Your task to perform on an android device: set the stopwatch Image 0: 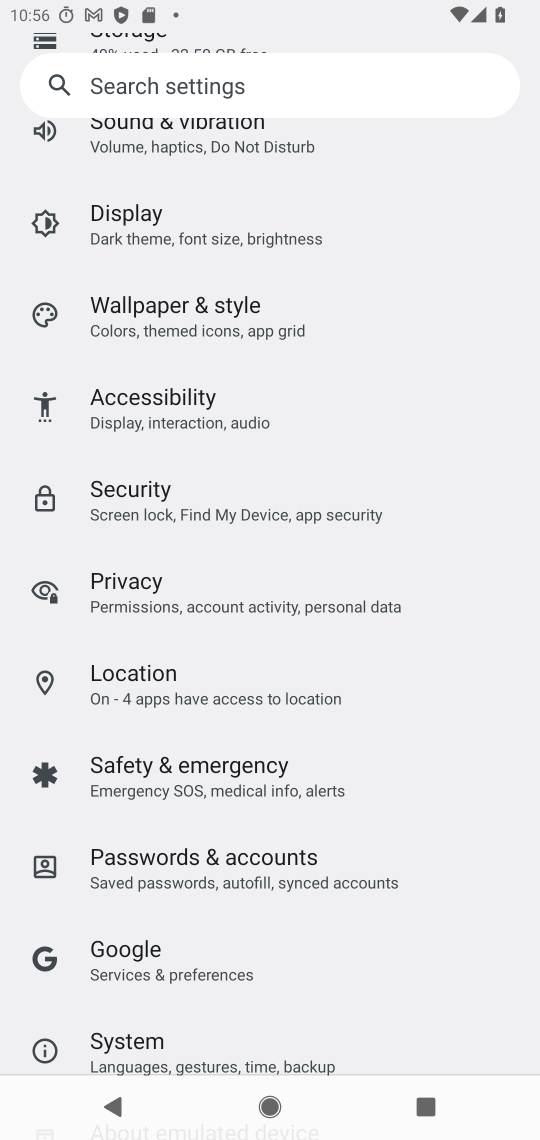
Step 0: press home button
Your task to perform on an android device: set the stopwatch Image 1: 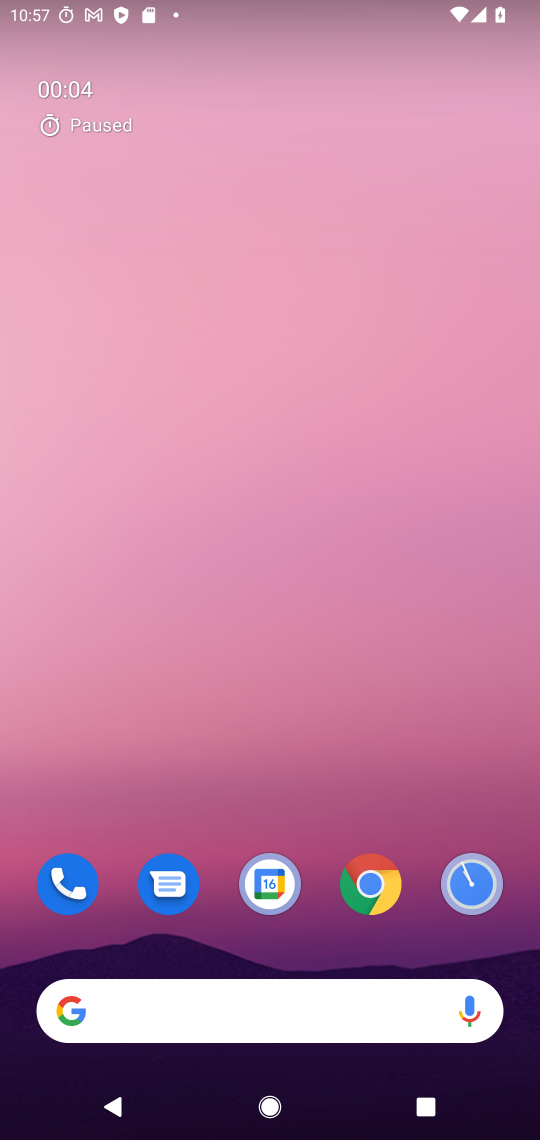
Step 1: click (467, 887)
Your task to perform on an android device: set the stopwatch Image 2: 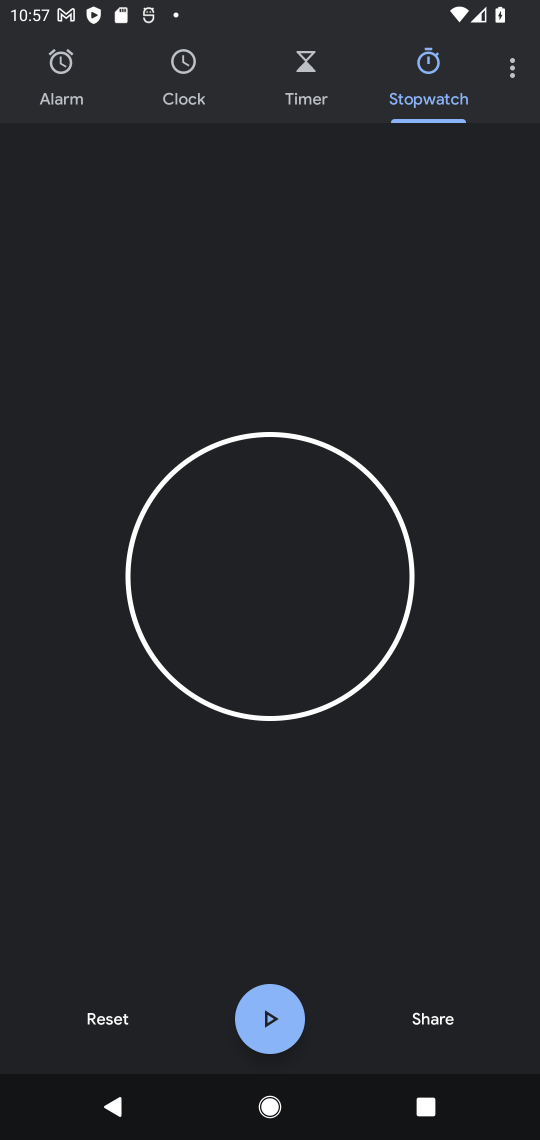
Step 2: click (109, 1026)
Your task to perform on an android device: set the stopwatch Image 3: 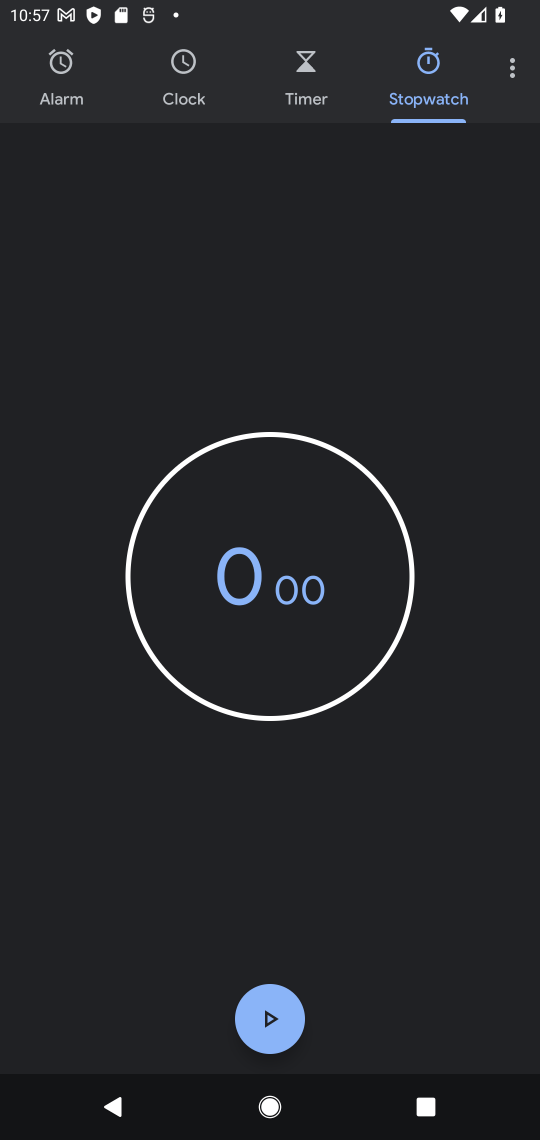
Step 3: click (261, 1023)
Your task to perform on an android device: set the stopwatch Image 4: 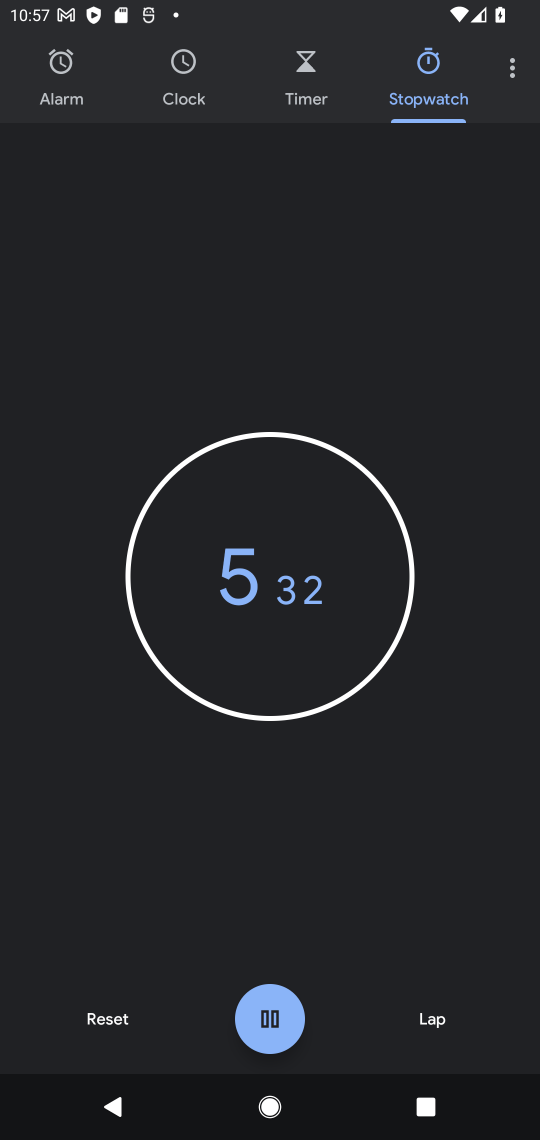
Step 4: click (261, 1023)
Your task to perform on an android device: set the stopwatch Image 5: 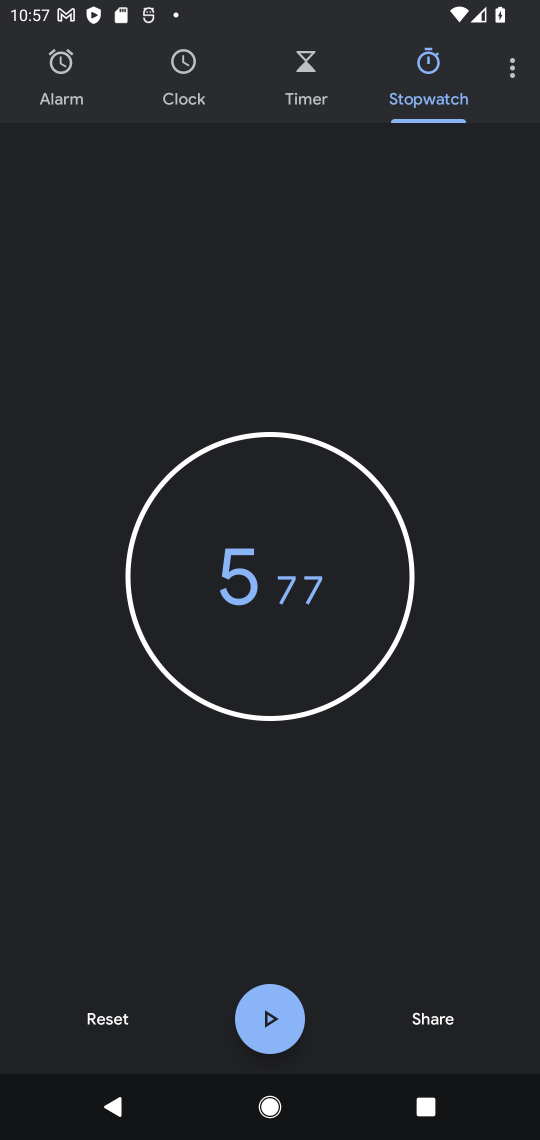
Step 5: task complete